Your task to perform on an android device: clear history in the chrome app Image 0: 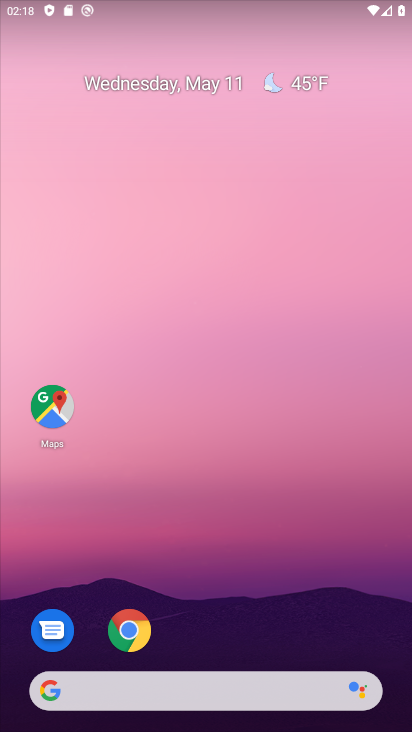
Step 0: click (122, 630)
Your task to perform on an android device: clear history in the chrome app Image 1: 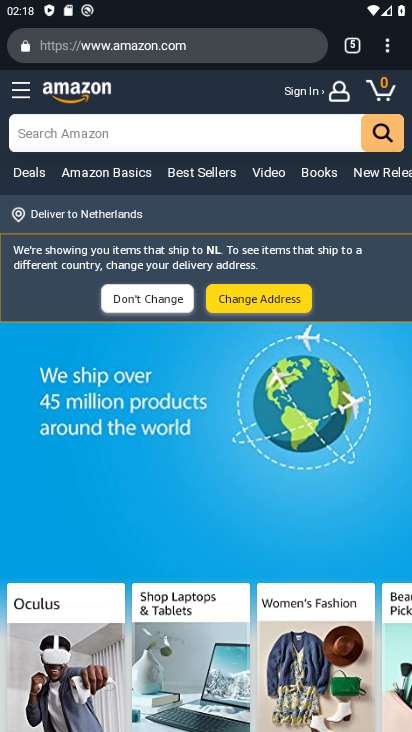
Step 1: click (390, 51)
Your task to perform on an android device: clear history in the chrome app Image 2: 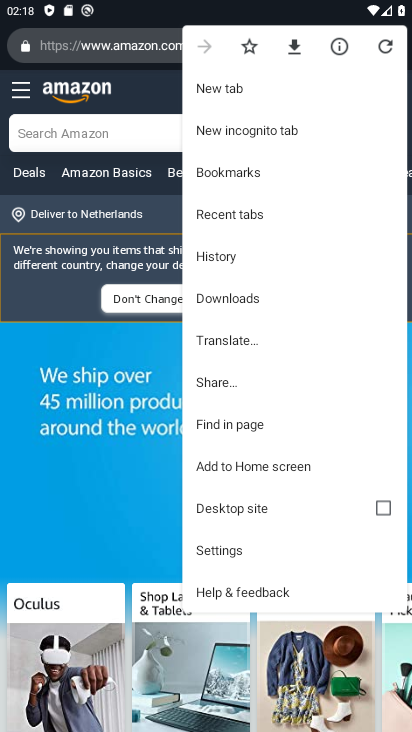
Step 2: click (221, 252)
Your task to perform on an android device: clear history in the chrome app Image 3: 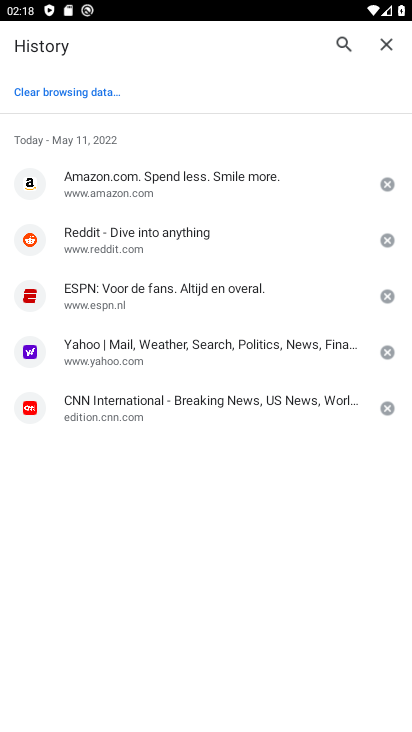
Step 3: click (69, 93)
Your task to perform on an android device: clear history in the chrome app Image 4: 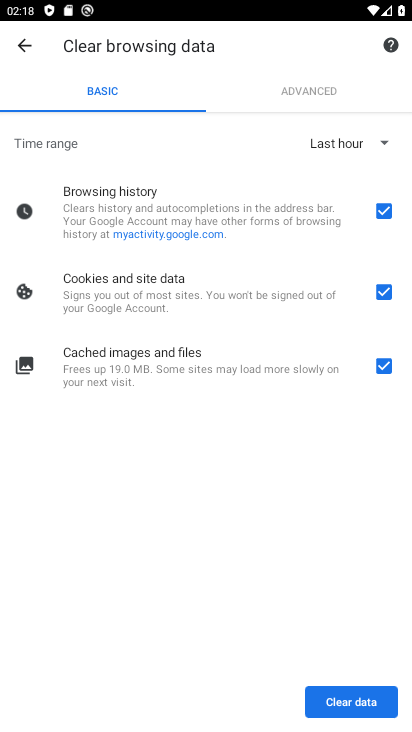
Step 4: click (379, 360)
Your task to perform on an android device: clear history in the chrome app Image 5: 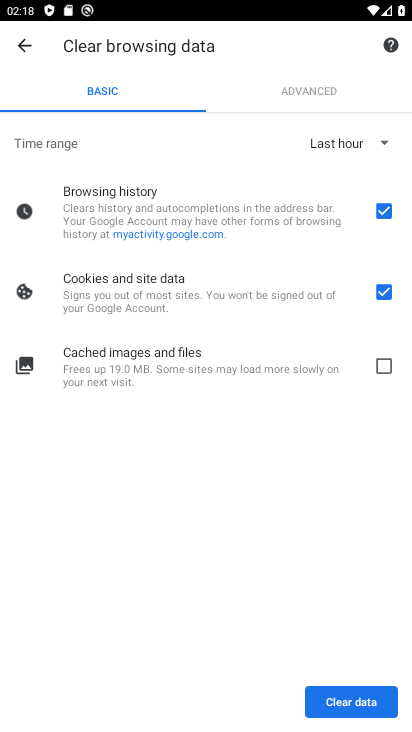
Step 5: click (384, 289)
Your task to perform on an android device: clear history in the chrome app Image 6: 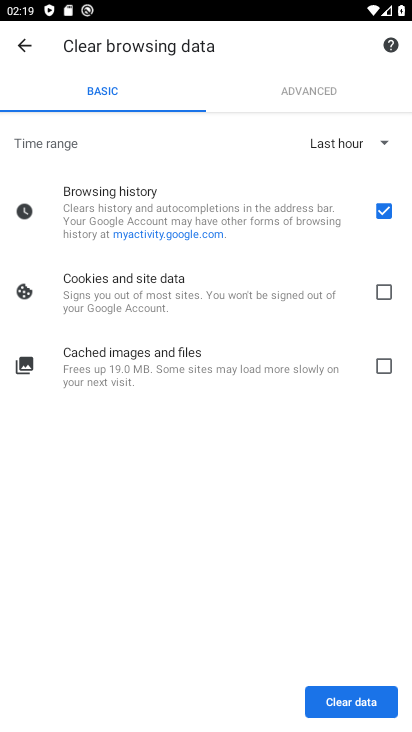
Step 6: click (358, 701)
Your task to perform on an android device: clear history in the chrome app Image 7: 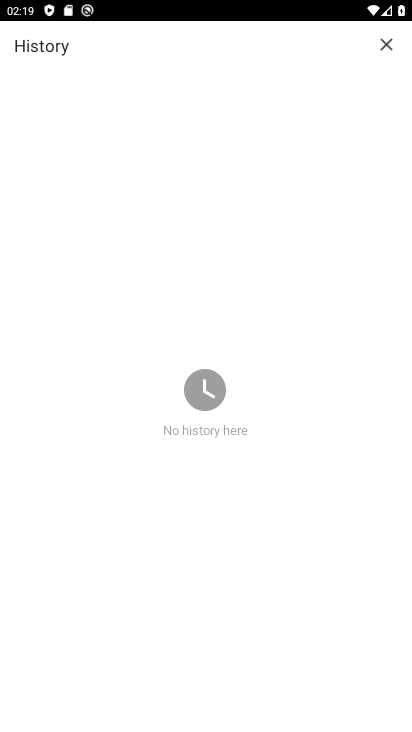
Step 7: task complete